Your task to perform on an android device: turn on the 12-hour format for clock Image 0: 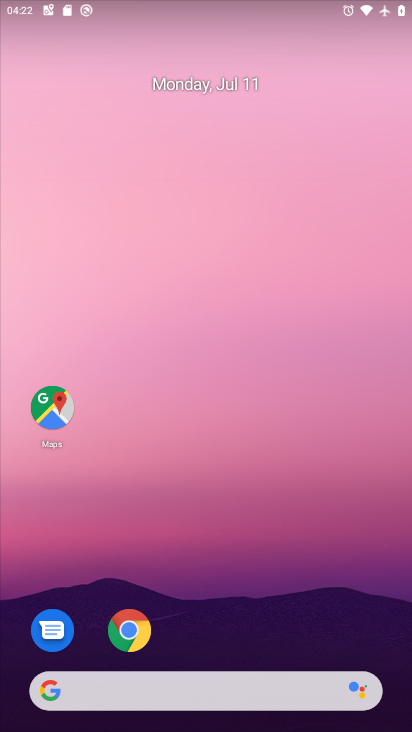
Step 0: drag from (257, 625) to (204, 77)
Your task to perform on an android device: turn on the 12-hour format for clock Image 1: 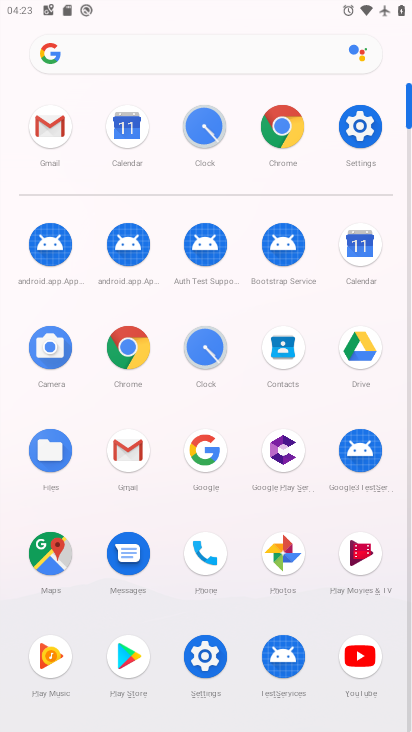
Step 1: click (217, 139)
Your task to perform on an android device: turn on the 12-hour format for clock Image 2: 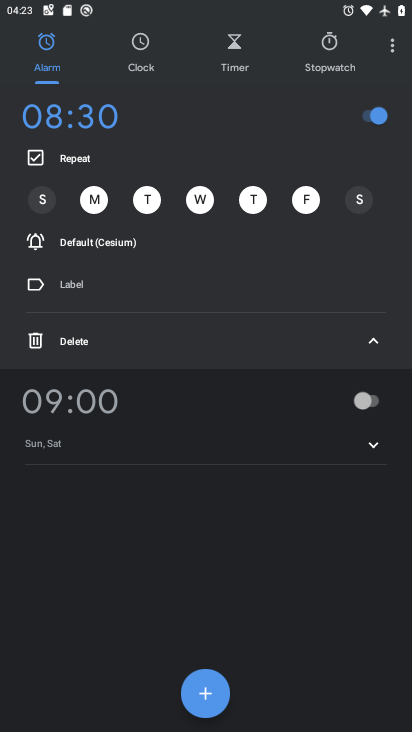
Step 2: click (378, 42)
Your task to perform on an android device: turn on the 12-hour format for clock Image 3: 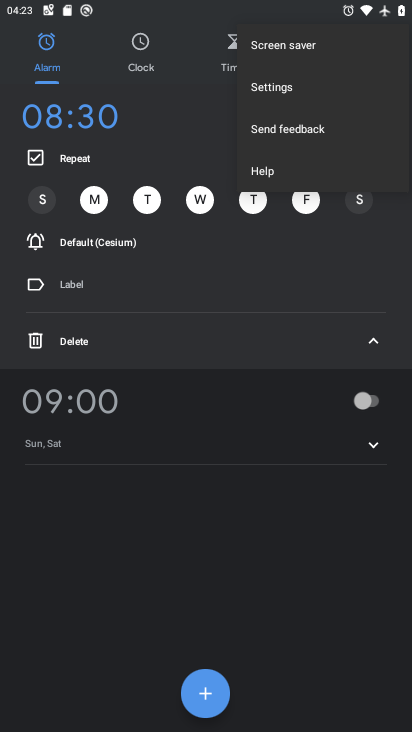
Step 3: click (299, 98)
Your task to perform on an android device: turn on the 12-hour format for clock Image 4: 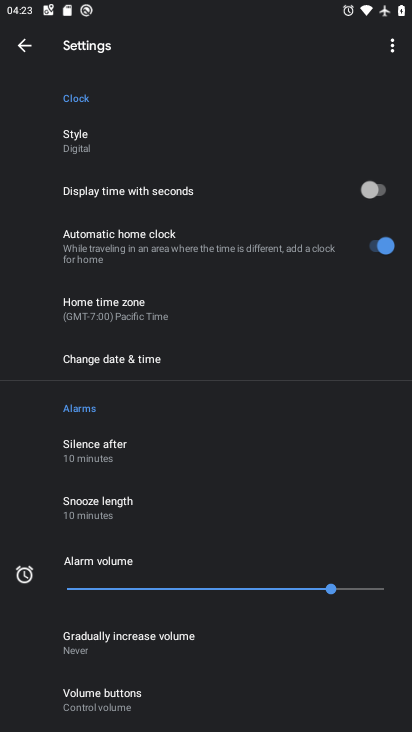
Step 4: click (244, 360)
Your task to perform on an android device: turn on the 12-hour format for clock Image 5: 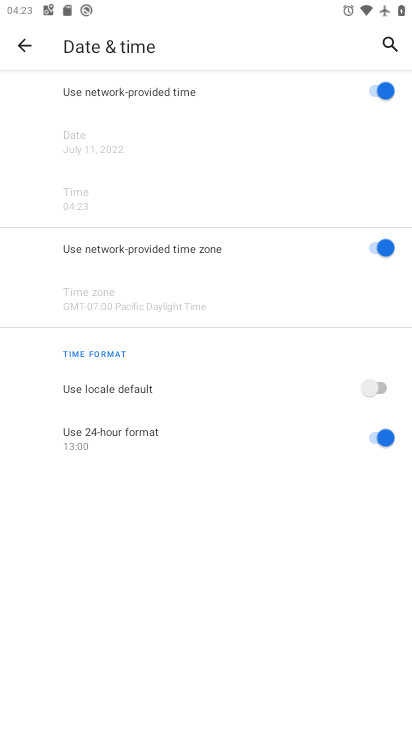
Step 5: click (354, 435)
Your task to perform on an android device: turn on the 12-hour format for clock Image 6: 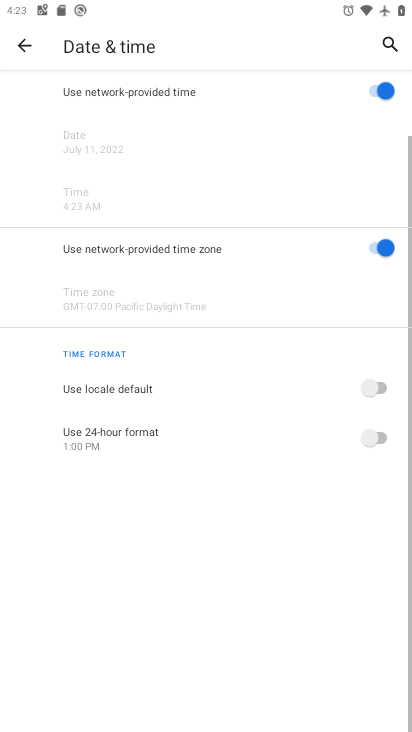
Step 6: task complete